Your task to perform on an android device: install app "Pluto TV - Live TV and Movies" Image 0: 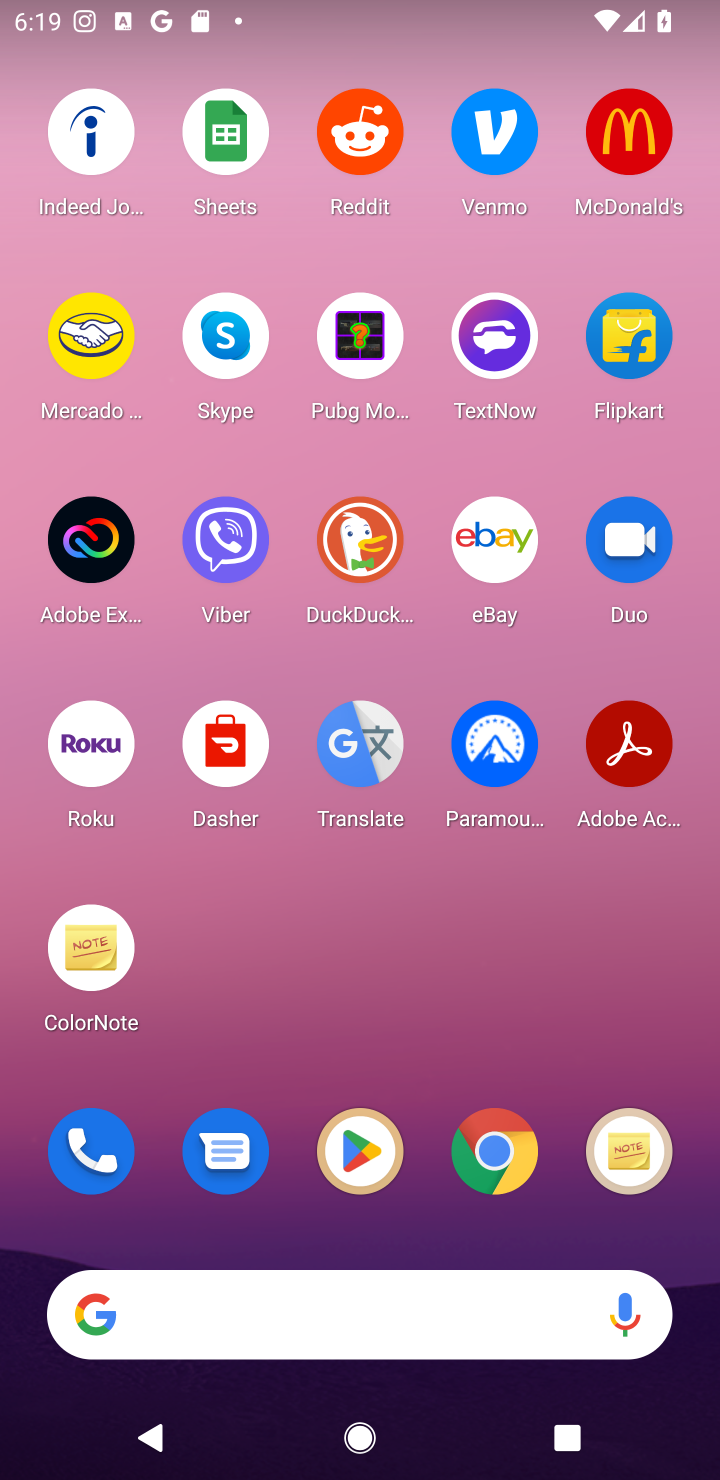
Step 0: press home button
Your task to perform on an android device: install app "Pluto TV - Live TV and Movies" Image 1: 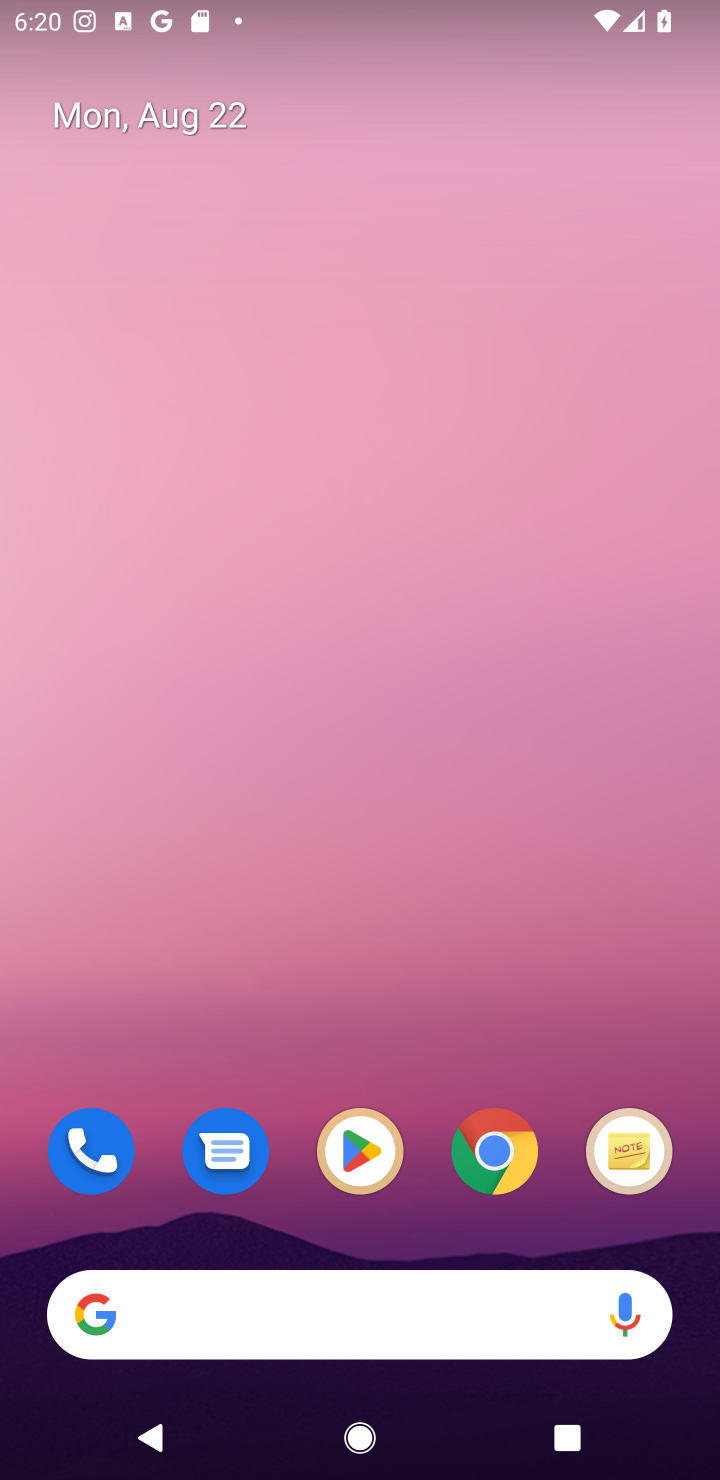
Step 1: click (359, 1150)
Your task to perform on an android device: install app "Pluto TV - Live TV and Movies" Image 2: 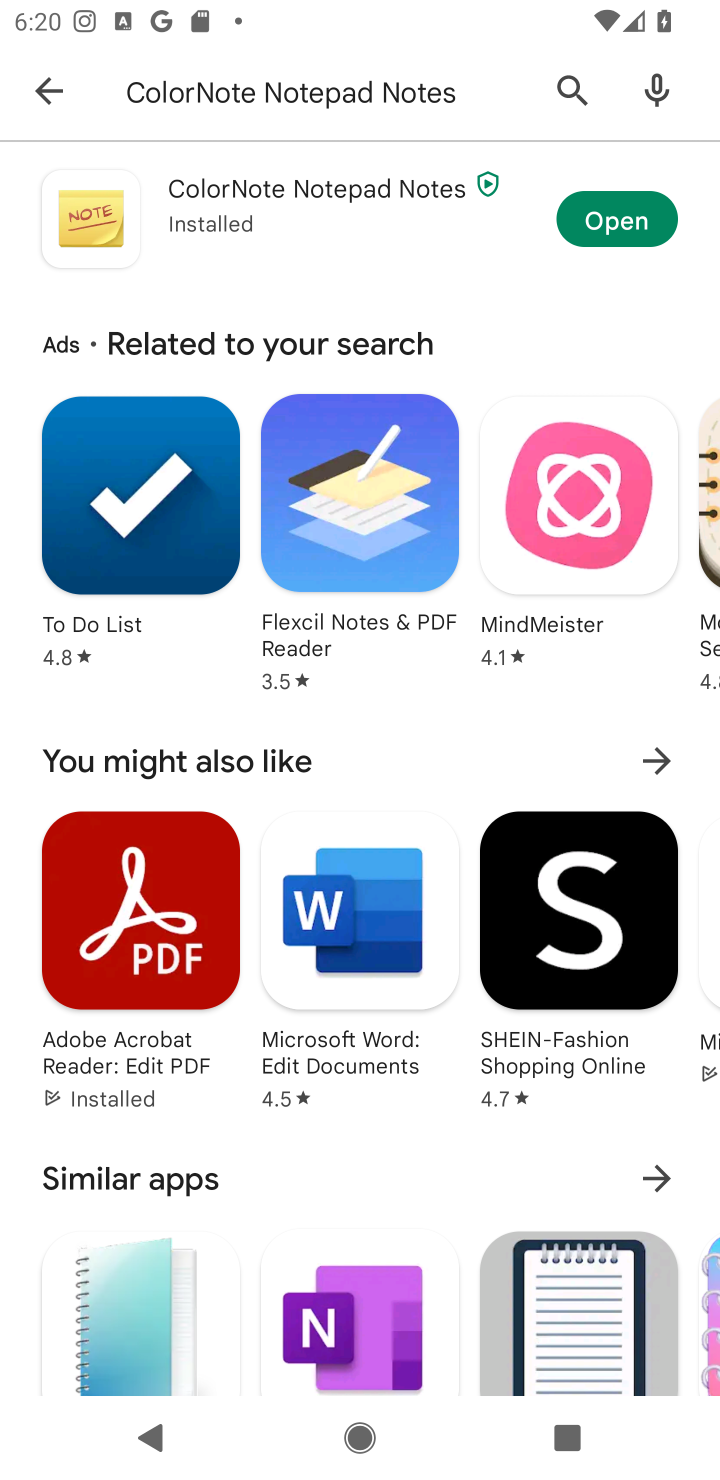
Step 2: click (569, 81)
Your task to perform on an android device: install app "Pluto TV - Live TV and Movies" Image 3: 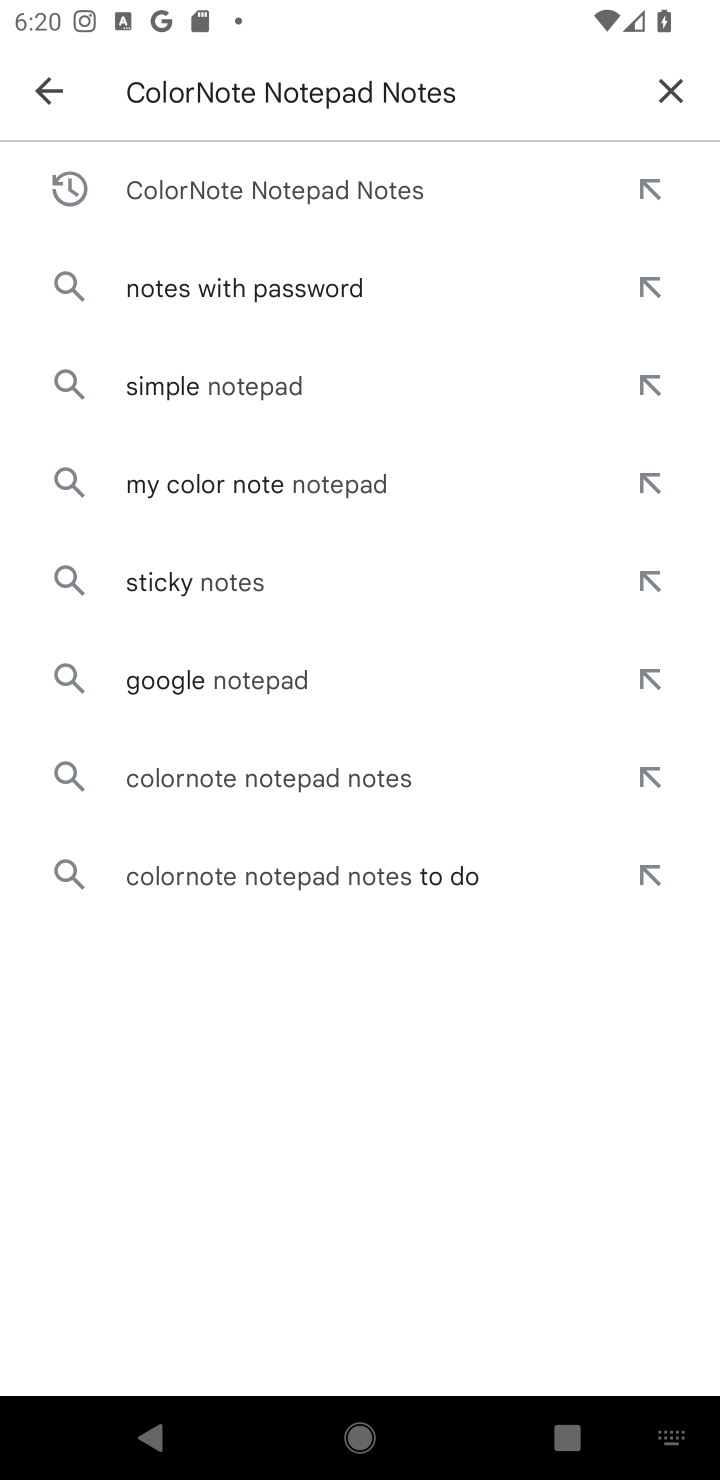
Step 3: click (655, 94)
Your task to perform on an android device: install app "Pluto TV - Live TV and Movies" Image 4: 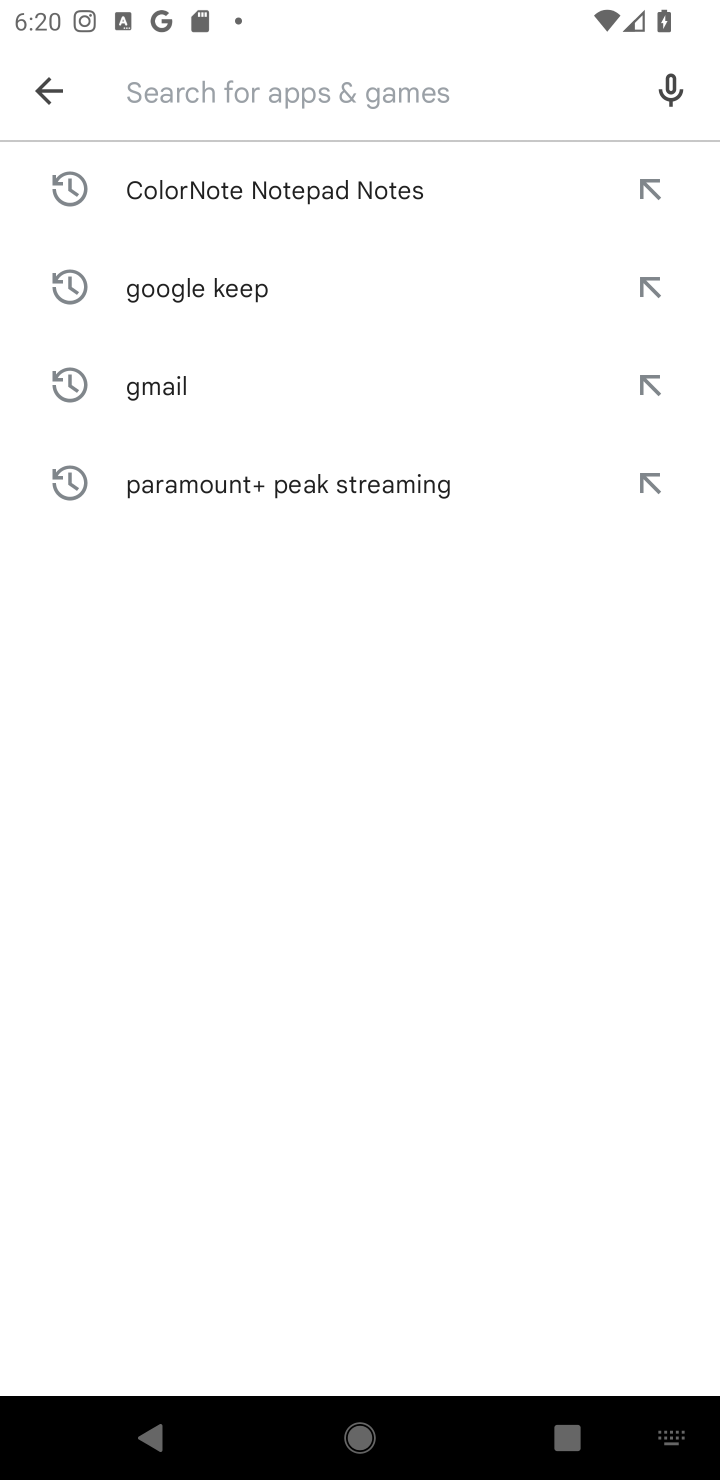
Step 4: type "Pluto TV - Live TV and Movies"
Your task to perform on an android device: install app "Pluto TV - Live TV and Movies" Image 5: 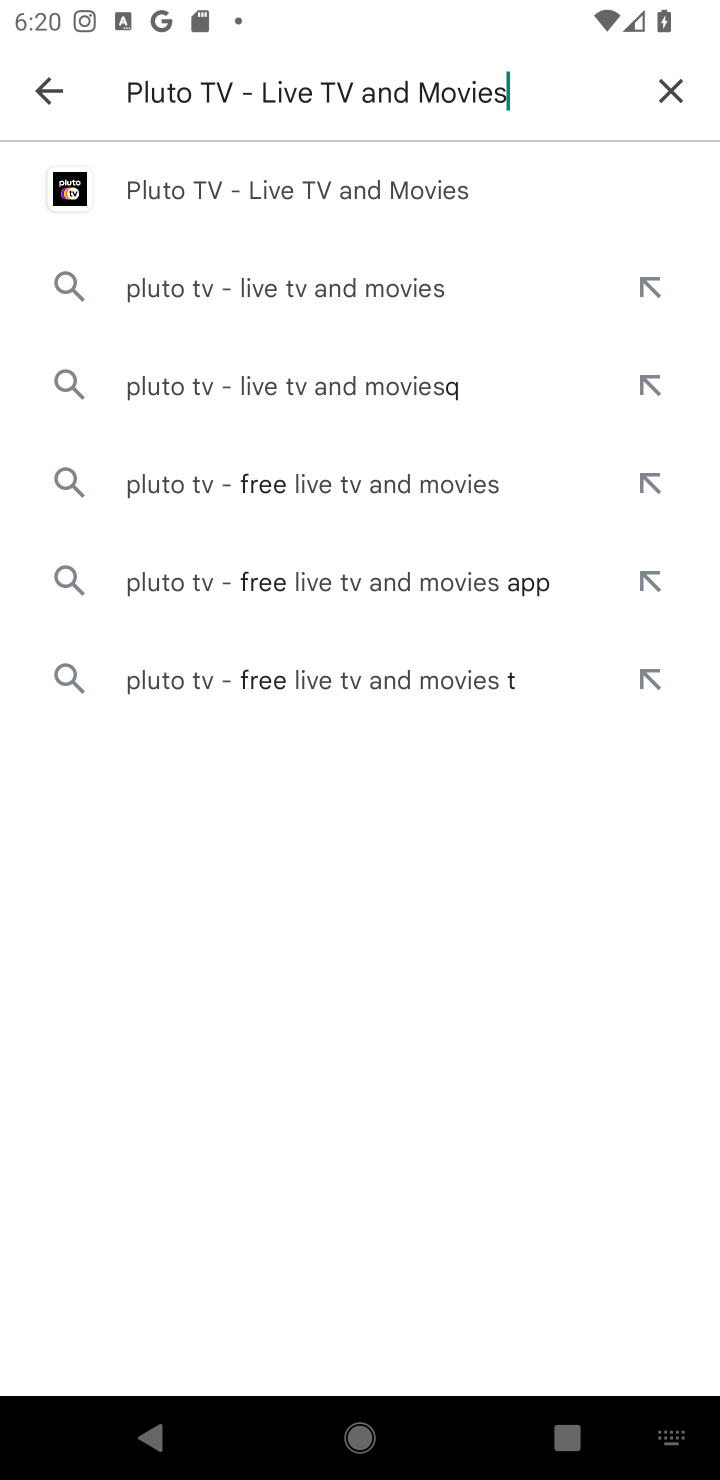
Step 5: click (325, 183)
Your task to perform on an android device: install app "Pluto TV - Live TV and Movies" Image 6: 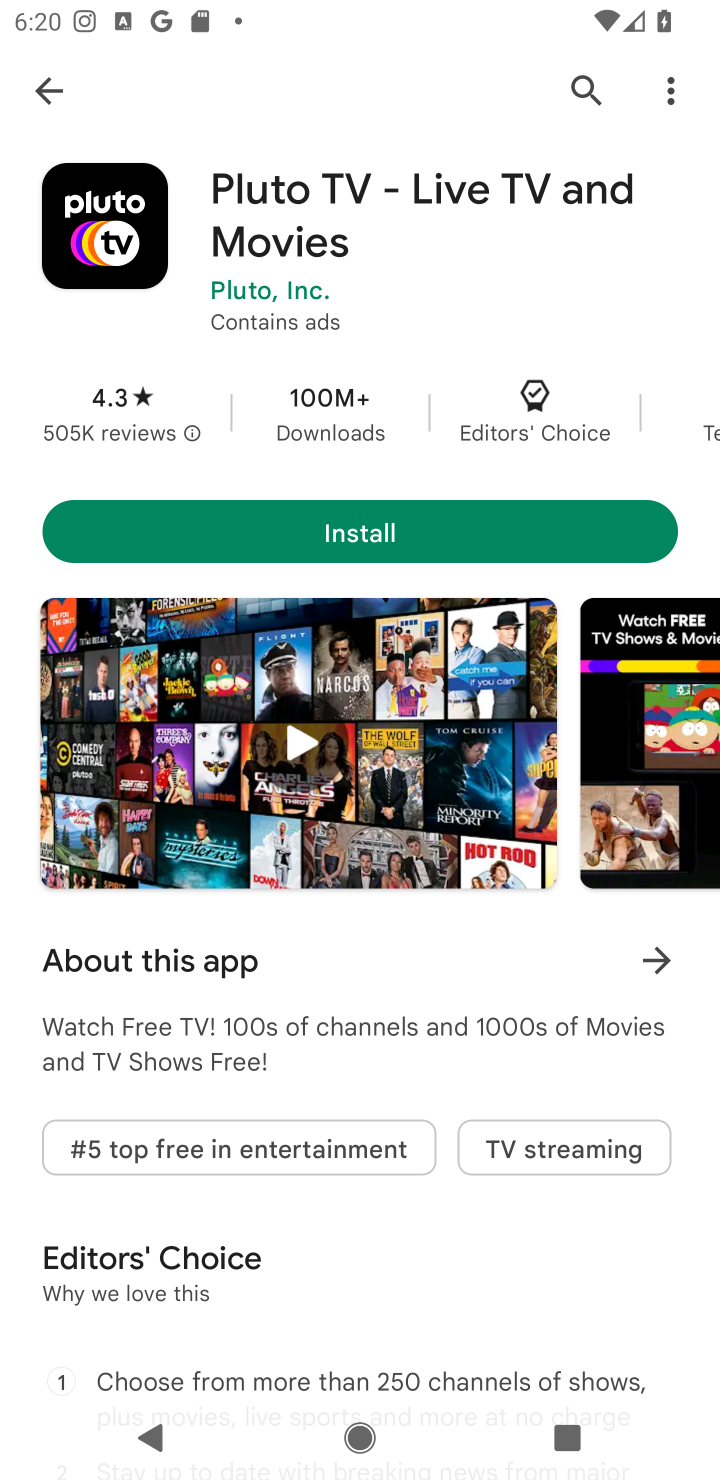
Step 6: click (385, 544)
Your task to perform on an android device: install app "Pluto TV - Live TV and Movies" Image 7: 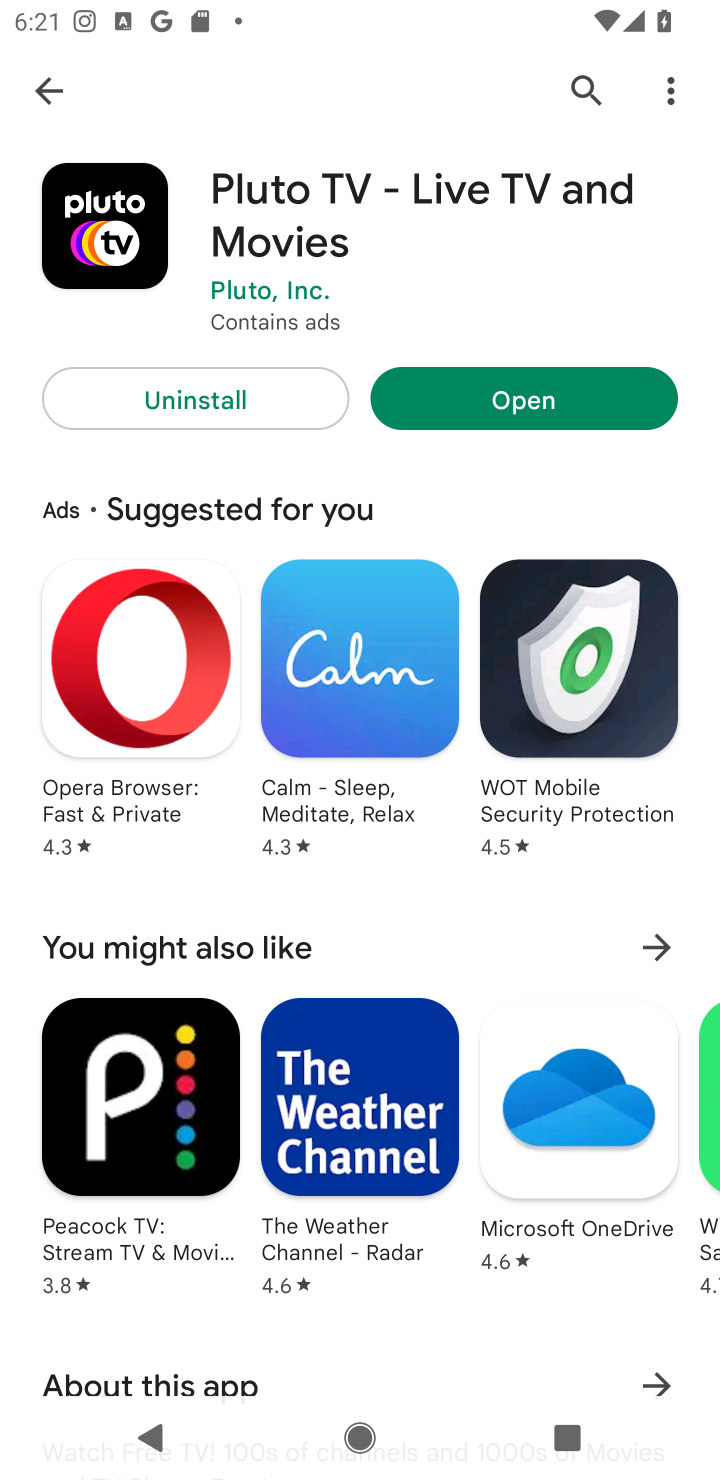
Step 7: task complete